Your task to perform on an android device: uninstall "Google Keep" Image 0: 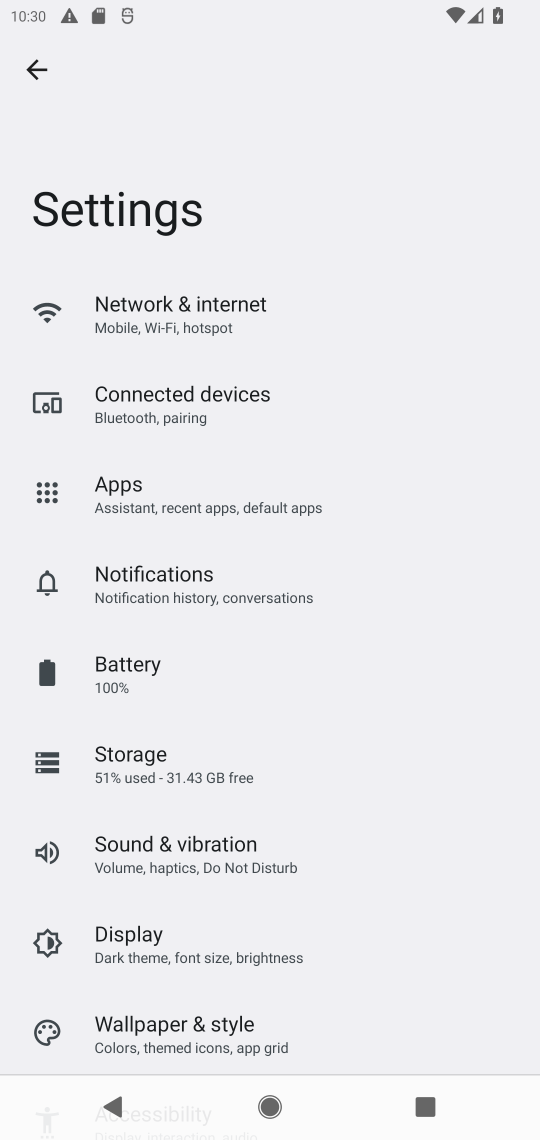
Step 0: press home button
Your task to perform on an android device: uninstall "Google Keep" Image 1: 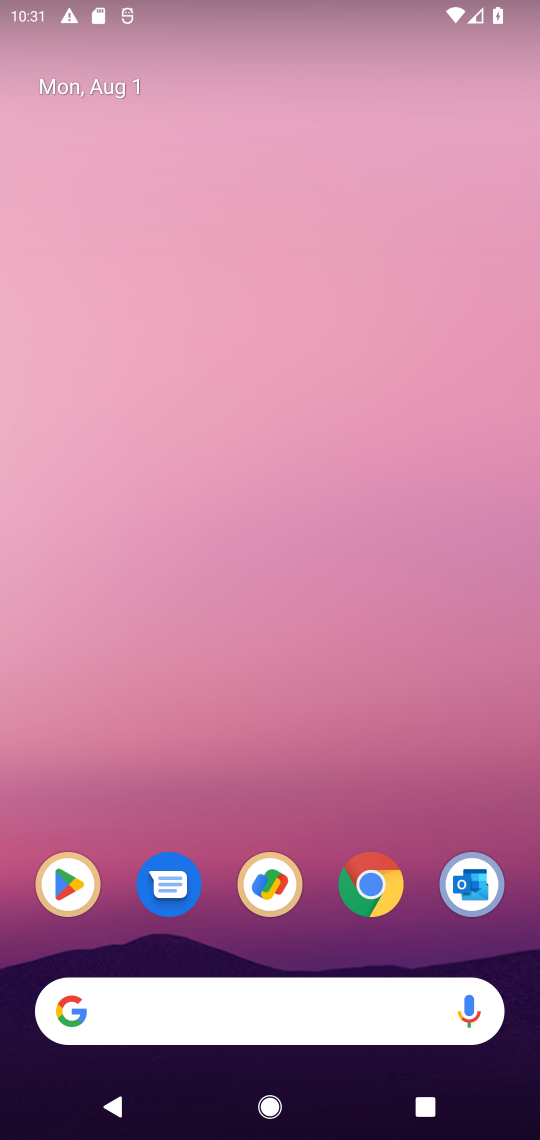
Step 1: click (53, 868)
Your task to perform on an android device: uninstall "Google Keep" Image 2: 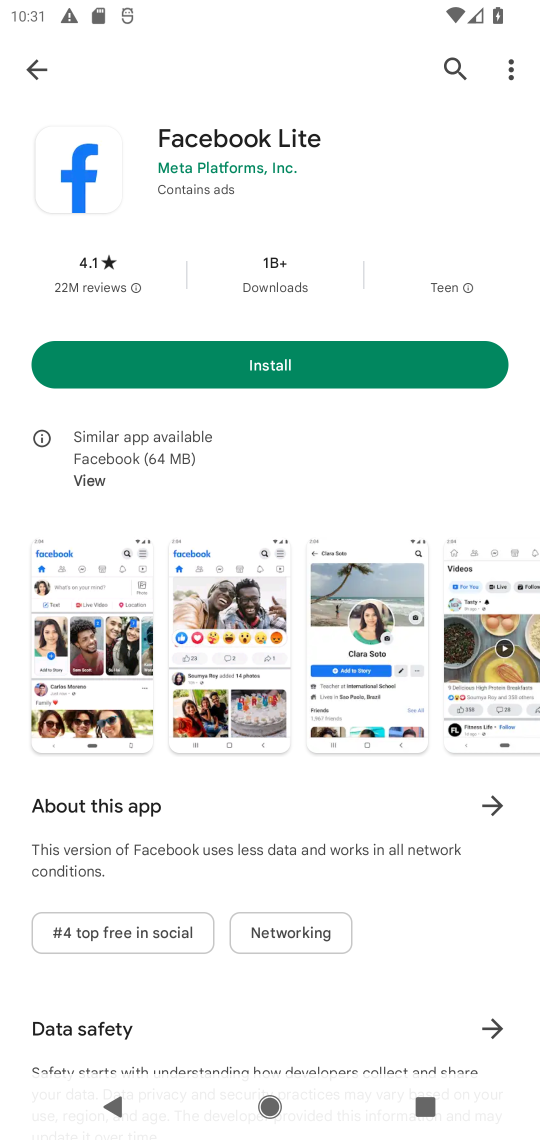
Step 2: click (462, 71)
Your task to perform on an android device: uninstall "Google Keep" Image 3: 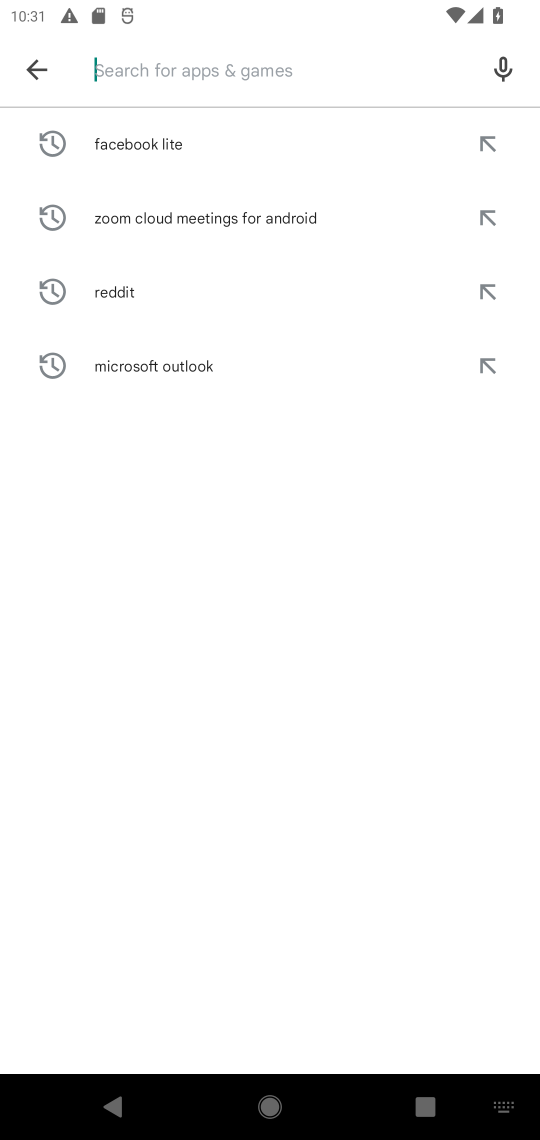
Step 3: type "google keep"
Your task to perform on an android device: uninstall "Google Keep" Image 4: 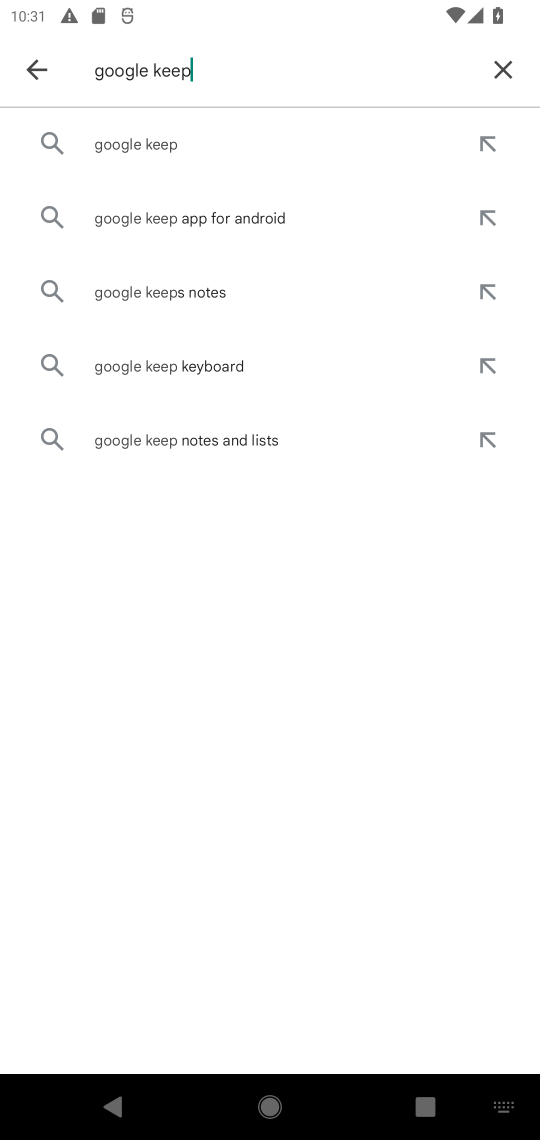
Step 4: click (153, 159)
Your task to perform on an android device: uninstall "Google Keep" Image 5: 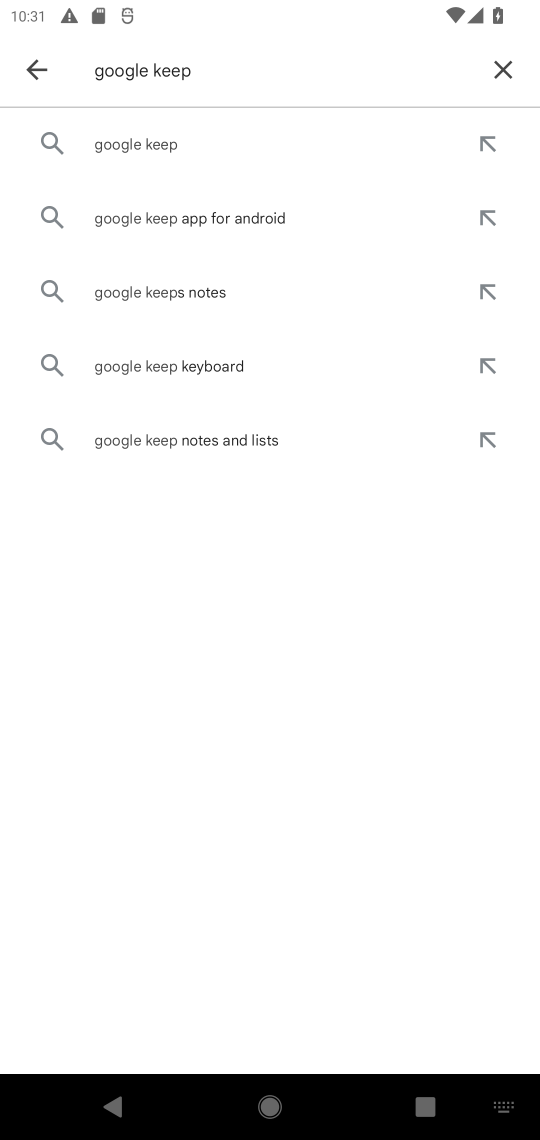
Step 5: click (153, 159)
Your task to perform on an android device: uninstall "Google Keep" Image 6: 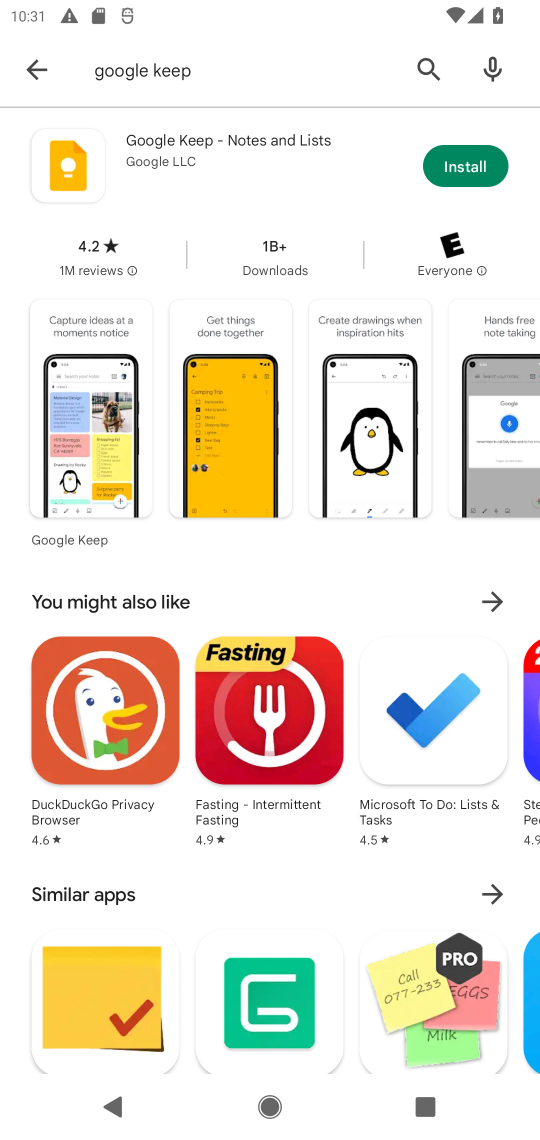
Step 6: click (257, 129)
Your task to perform on an android device: uninstall "Google Keep" Image 7: 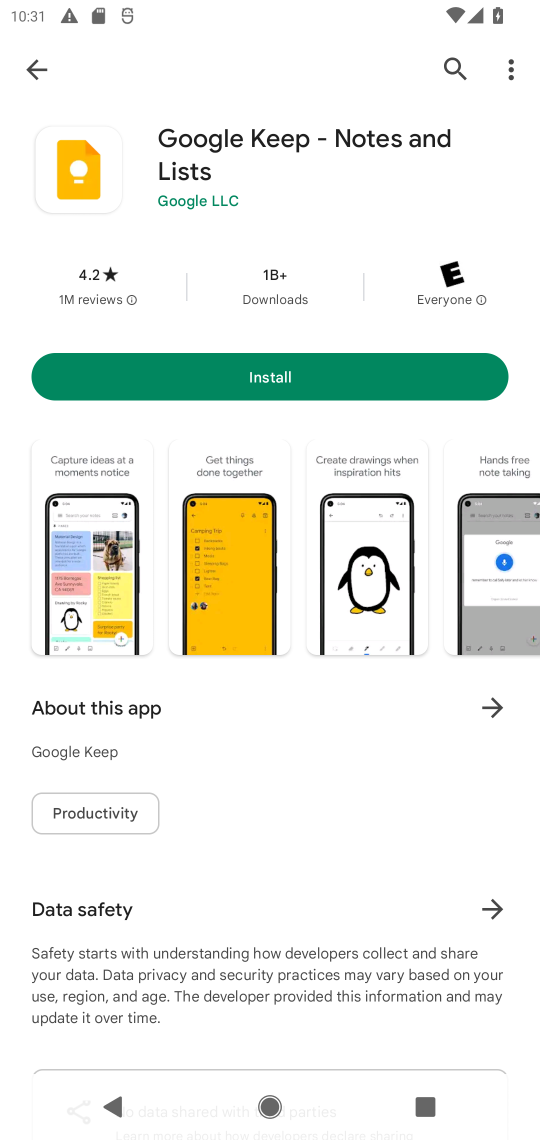
Step 7: task complete